Your task to perform on an android device: toggle javascript in the chrome app Image 0: 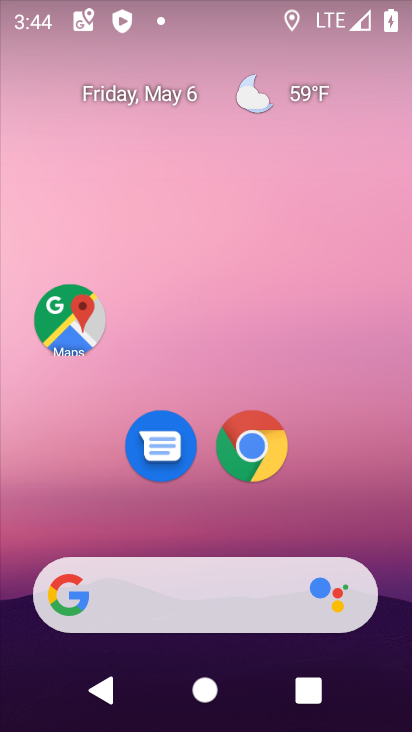
Step 0: click (260, 461)
Your task to perform on an android device: toggle javascript in the chrome app Image 1: 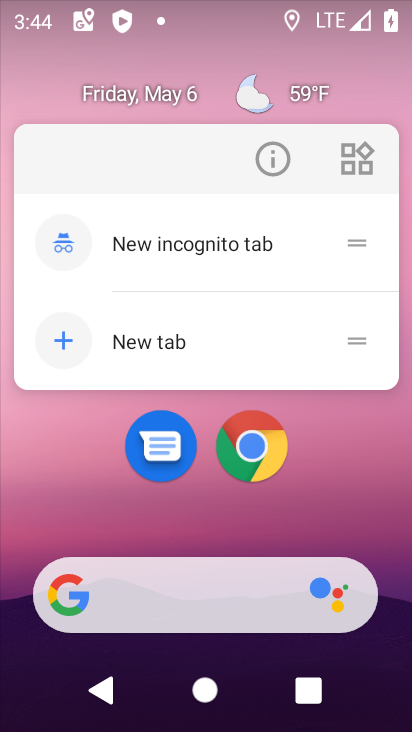
Step 1: click (260, 461)
Your task to perform on an android device: toggle javascript in the chrome app Image 2: 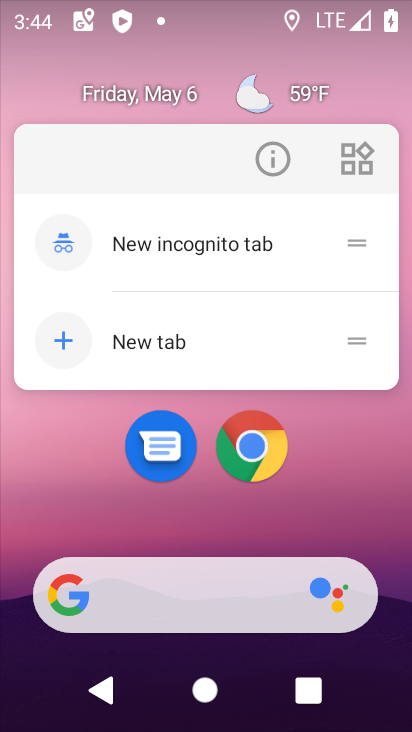
Step 2: click (248, 455)
Your task to perform on an android device: toggle javascript in the chrome app Image 3: 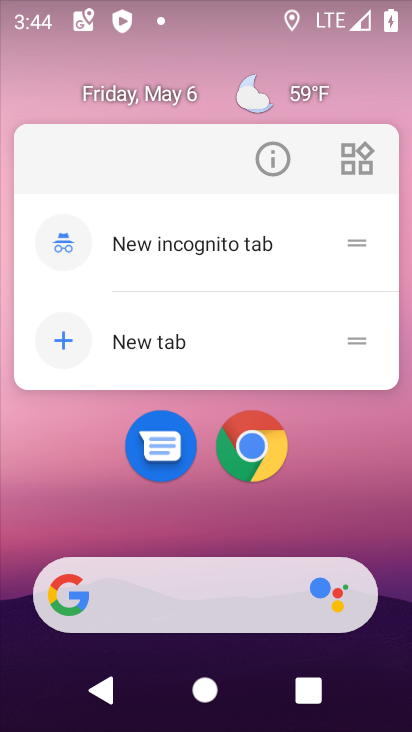
Step 3: click (252, 458)
Your task to perform on an android device: toggle javascript in the chrome app Image 4: 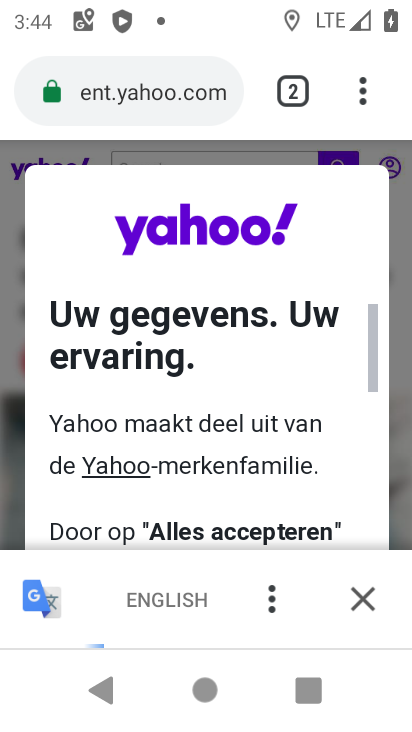
Step 4: drag from (362, 101) to (194, 480)
Your task to perform on an android device: toggle javascript in the chrome app Image 5: 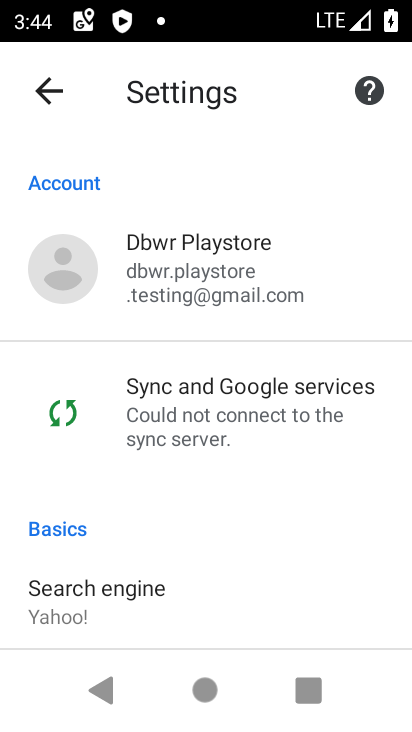
Step 5: drag from (194, 574) to (236, 130)
Your task to perform on an android device: toggle javascript in the chrome app Image 6: 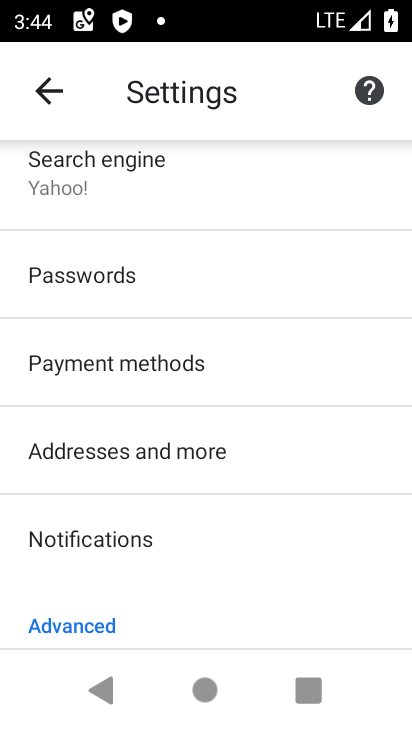
Step 6: drag from (165, 599) to (212, 231)
Your task to perform on an android device: toggle javascript in the chrome app Image 7: 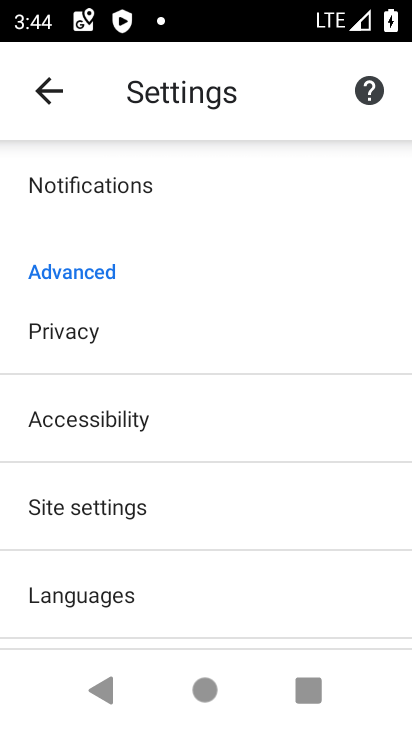
Step 7: click (145, 515)
Your task to perform on an android device: toggle javascript in the chrome app Image 8: 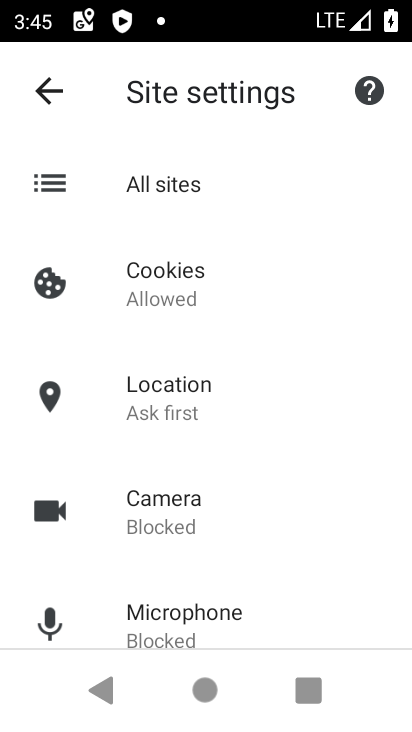
Step 8: drag from (207, 601) to (210, 261)
Your task to perform on an android device: toggle javascript in the chrome app Image 9: 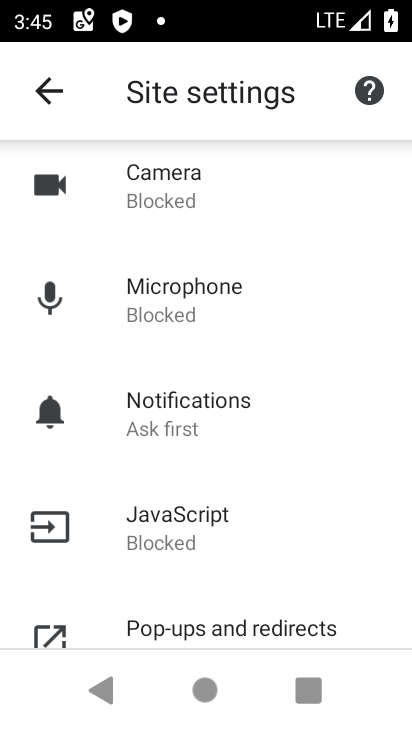
Step 9: click (182, 530)
Your task to perform on an android device: toggle javascript in the chrome app Image 10: 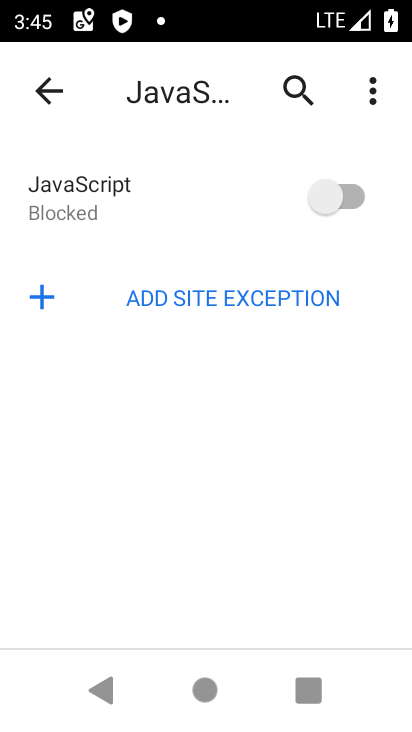
Step 10: click (335, 189)
Your task to perform on an android device: toggle javascript in the chrome app Image 11: 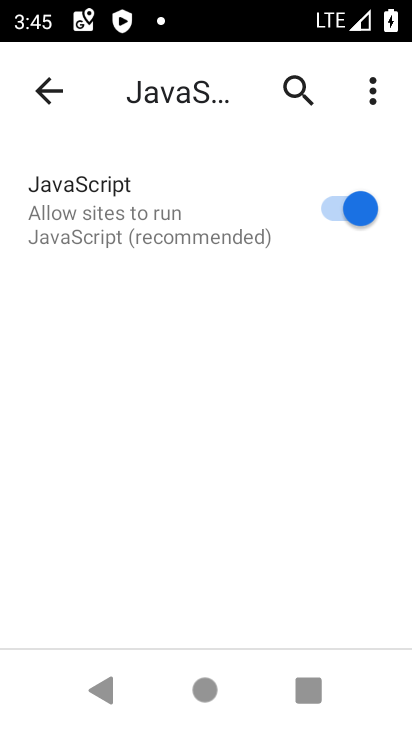
Step 11: task complete